Your task to perform on an android device: all mails in gmail Image 0: 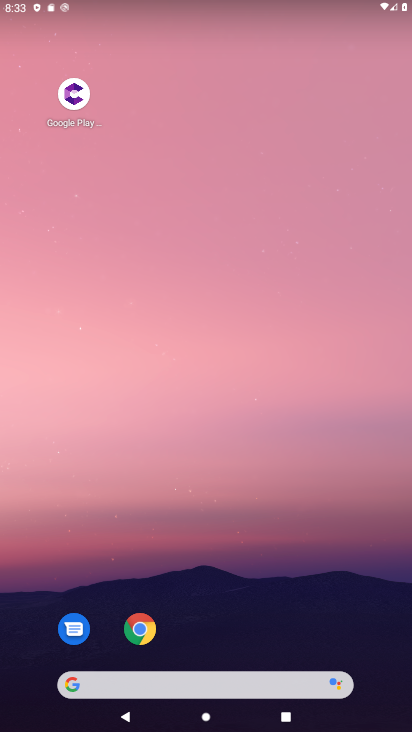
Step 0: drag from (221, 637) to (224, 119)
Your task to perform on an android device: all mails in gmail Image 1: 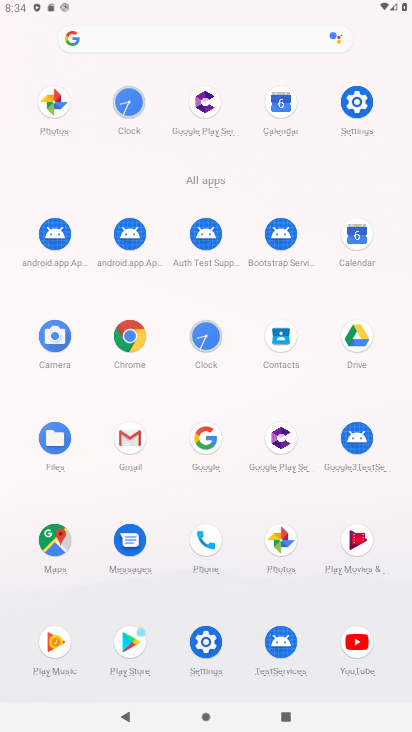
Step 1: click (130, 437)
Your task to perform on an android device: all mails in gmail Image 2: 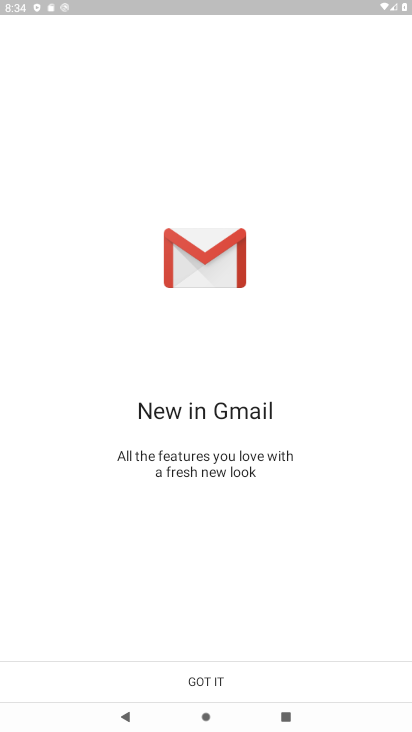
Step 2: click (205, 676)
Your task to perform on an android device: all mails in gmail Image 3: 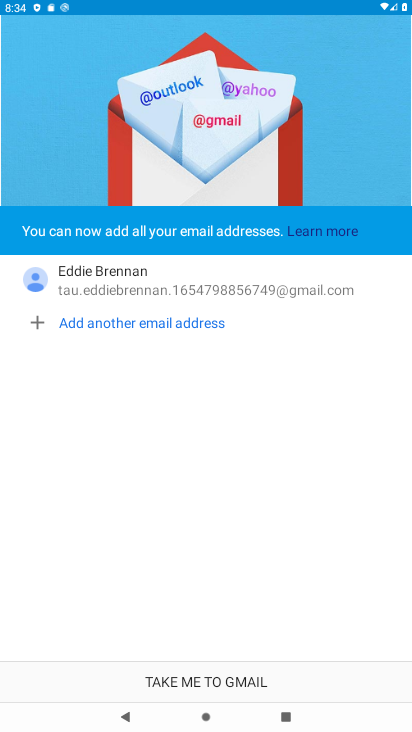
Step 3: click (205, 676)
Your task to perform on an android device: all mails in gmail Image 4: 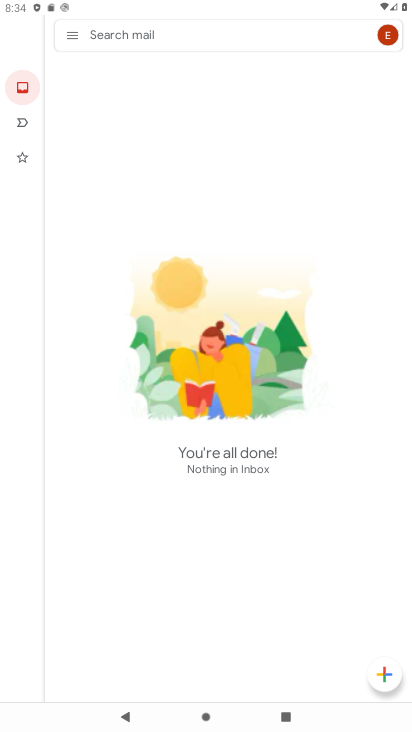
Step 4: click (69, 37)
Your task to perform on an android device: all mails in gmail Image 5: 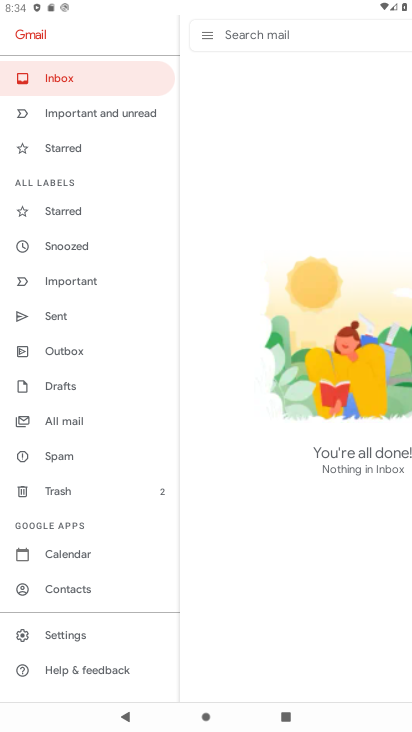
Step 5: click (66, 425)
Your task to perform on an android device: all mails in gmail Image 6: 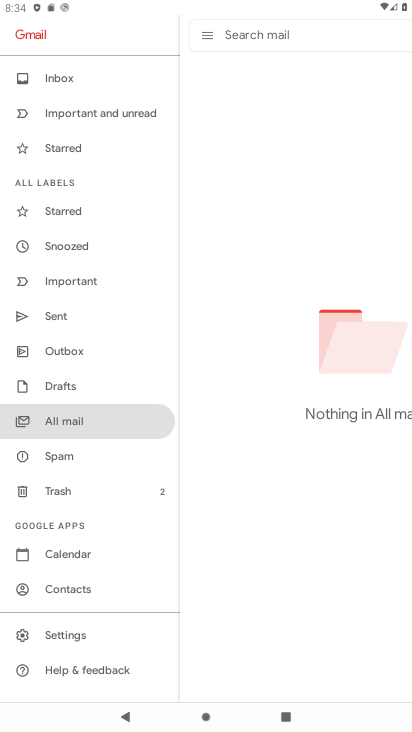
Step 6: task complete